Your task to perform on an android device: Go to accessibility settings Image 0: 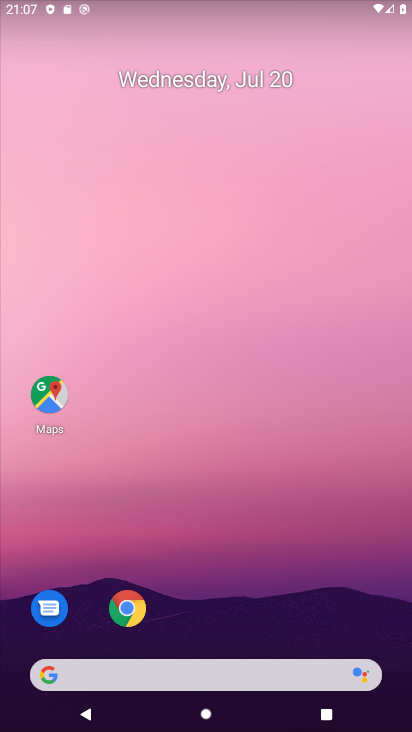
Step 0: drag from (262, 673) to (228, 198)
Your task to perform on an android device: Go to accessibility settings Image 1: 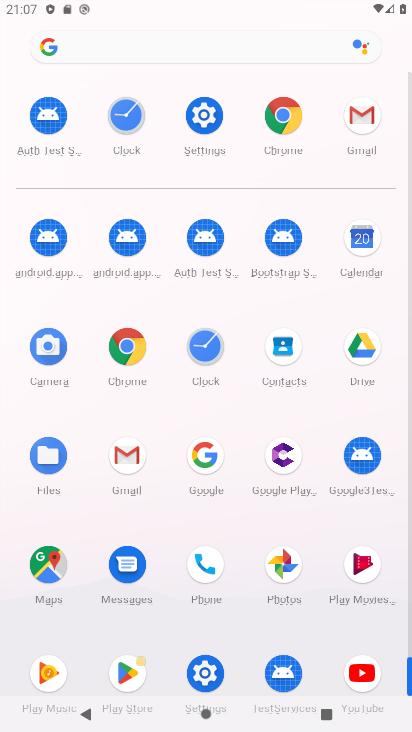
Step 1: click (193, 112)
Your task to perform on an android device: Go to accessibility settings Image 2: 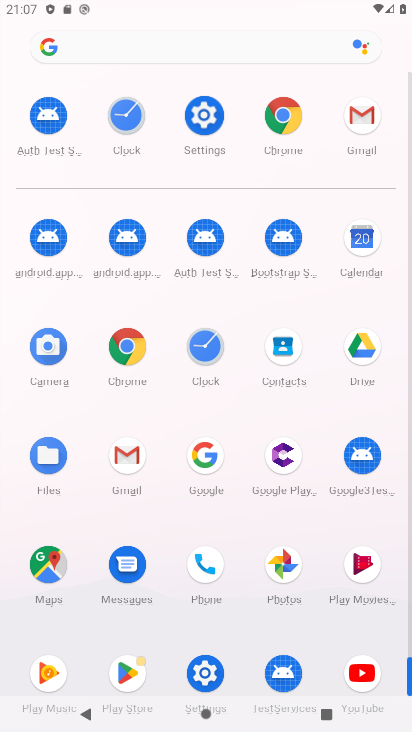
Step 2: click (195, 115)
Your task to perform on an android device: Go to accessibility settings Image 3: 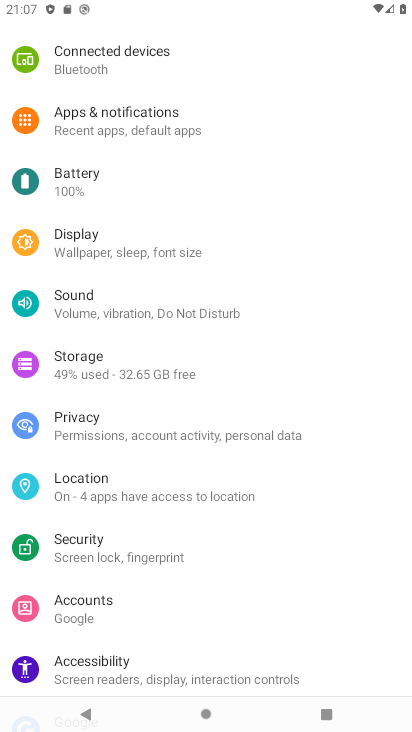
Step 3: click (97, 666)
Your task to perform on an android device: Go to accessibility settings Image 4: 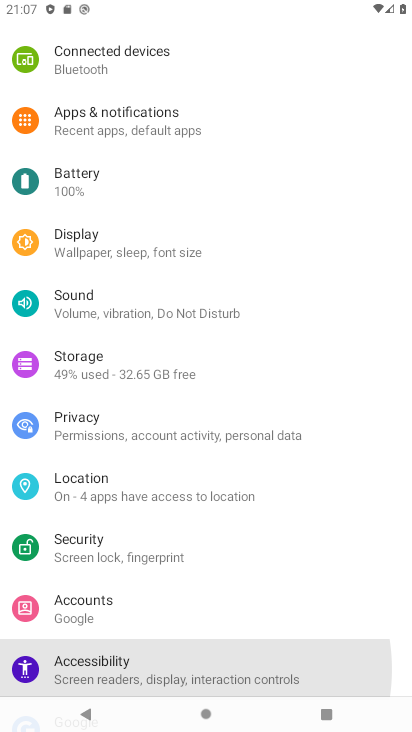
Step 4: click (97, 666)
Your task to perform on an android device: Go to accessibility settings Image 5: 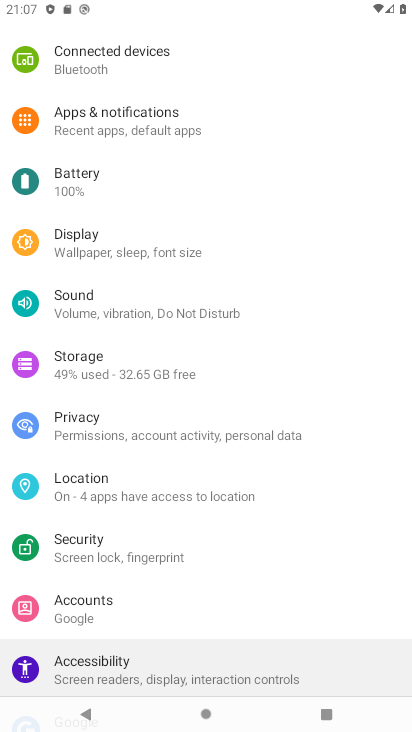
Step 5: click (97, 666)
Your task to perform on an android device: Go to accessibility settings Image 6: 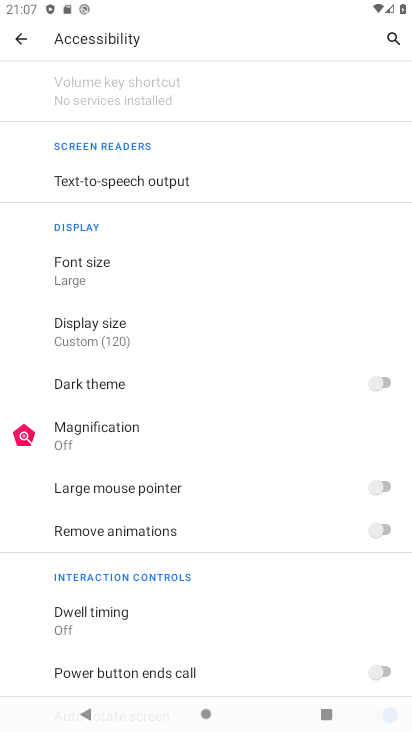
Step 6: task complete